Your task to perform on an android device: change keyboard looks Image 0: 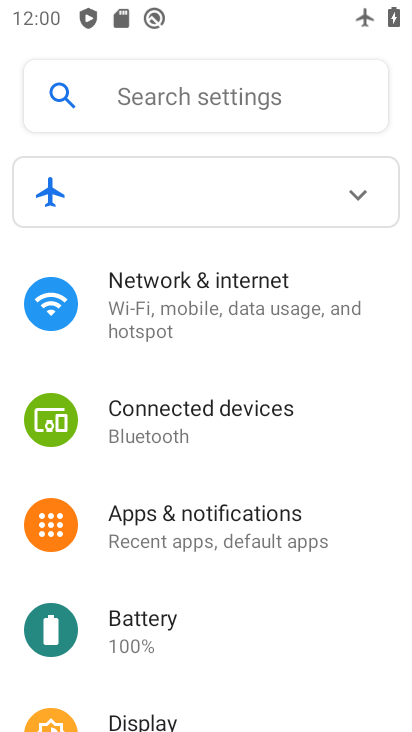
Step 0: press home button
Your task to perform on an android device: change keyboard looks Image 1: 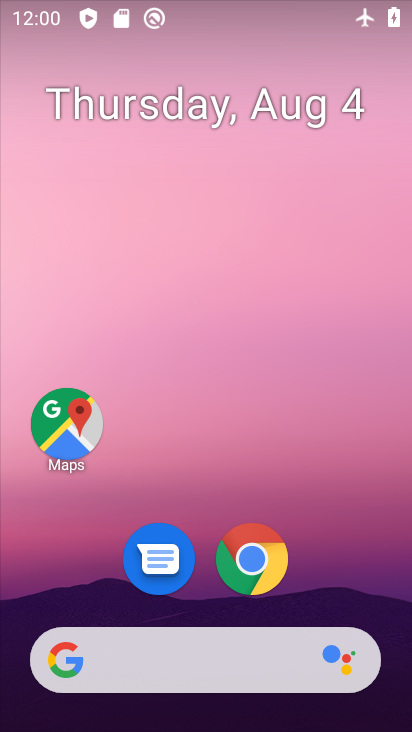
Step 1: drag from (160, 662) to (184, 319)
Your task to perform on an android device: change keyboard looks Image 2: 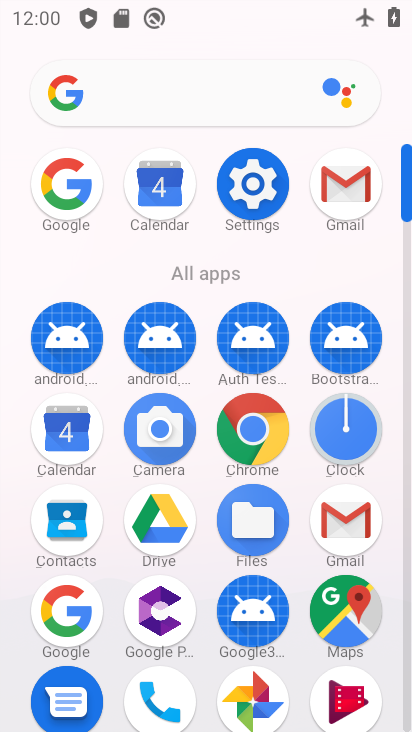
Step 2: click (252, 186)
Your task to perform on an android device: change keyboard looks Image 3: 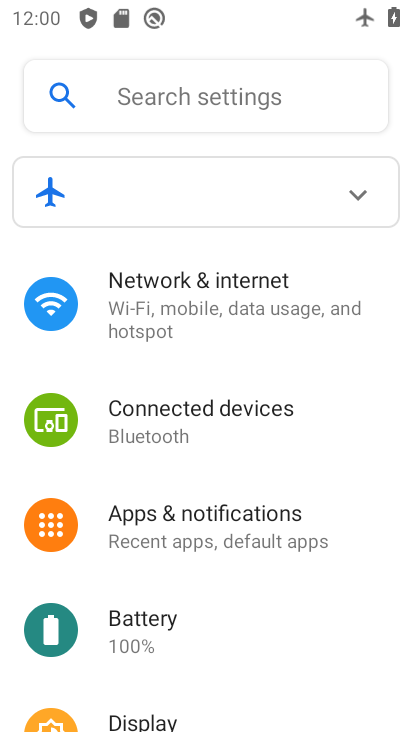
Step 3: drag from (164, 557) to (270, 401)
Your task to perform on an android device: change keyboard looks Image 4: 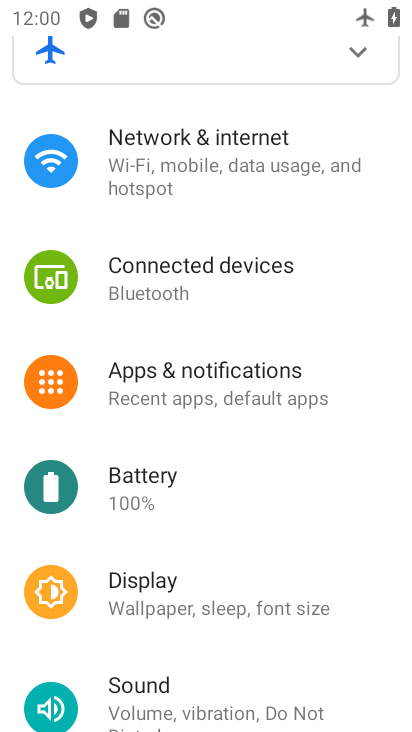
Step 4: drag from (158, 547) to (259, 429)
Your task to perform on an android device: change keyboard looks Image 5: 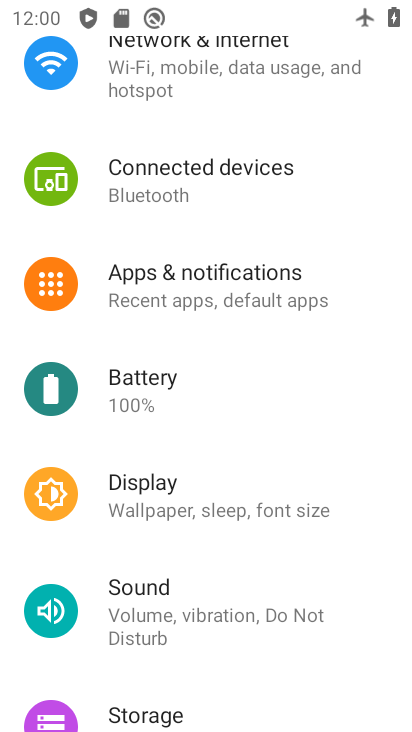
Step 5: drag from (158, 560) to (277, 437)
Your task to perform on an android device: change keyboard looks Image 6: 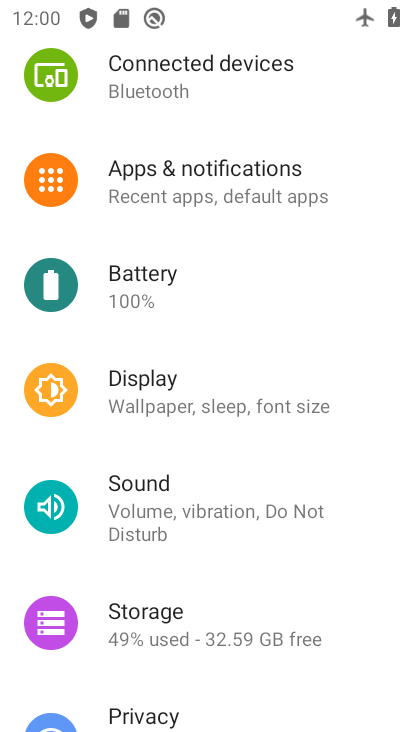
Step 6: drag from (131, 557) to (228, 441)
Your task to perform on an android device: change keyboard looks Image 7: 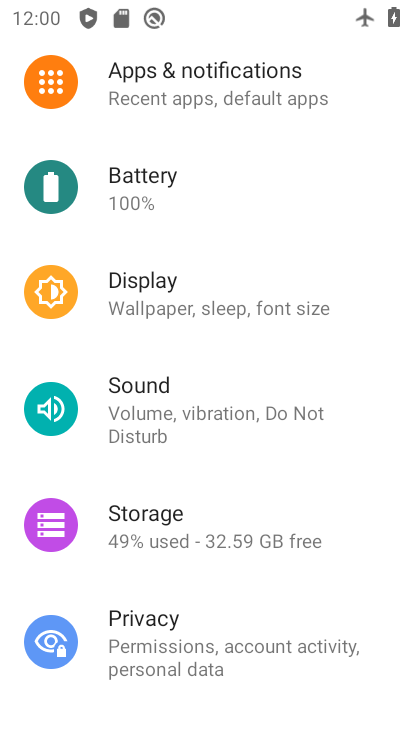
Step 7: drag from (145, 584) to (245, 468)
Your task to perform on an android device: change keyboard looks Image 8: 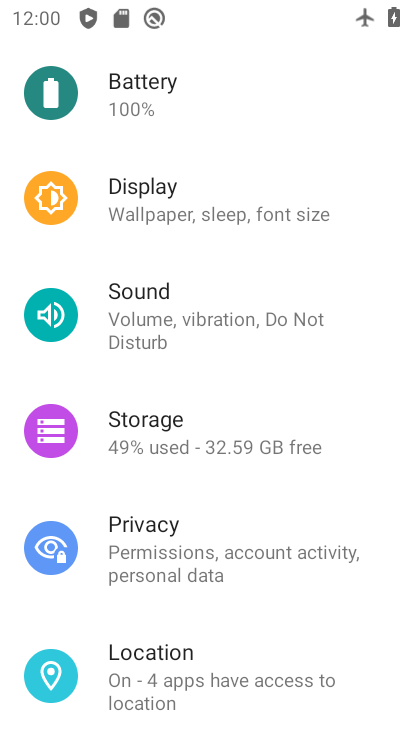
Step 8: drag from (139, 611) to (220, 504)
Your task to perform on an android device: change keyboard looks Image 9: 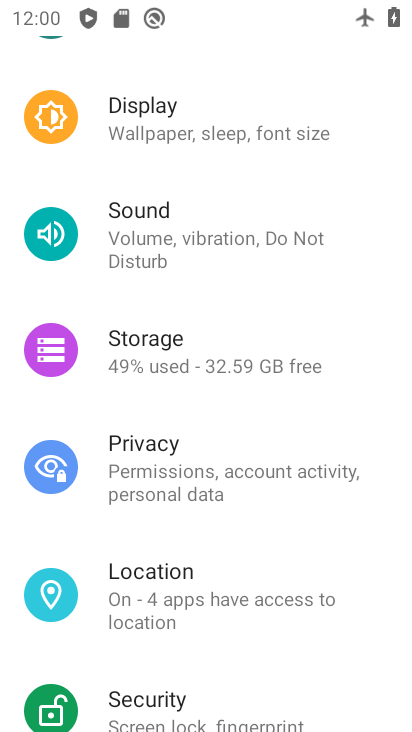
Step 9: drag from (125, 646) to (202, 538)
Your task to perform on an android device: change keyboard looks Image 10: 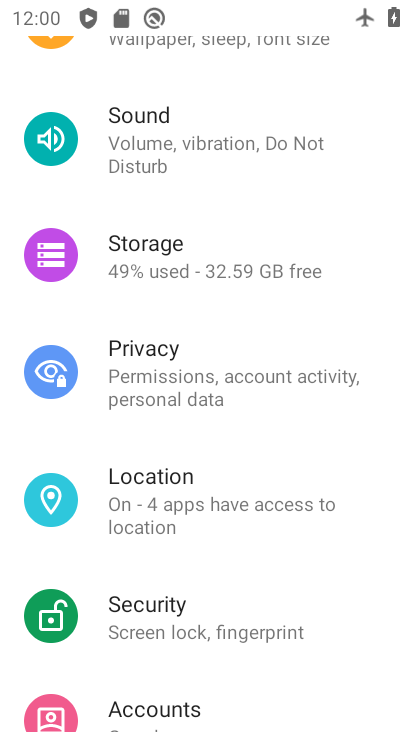
Step 10: drag from (135, 654) to (176, 552)
Your task to perform on an android device: change keyboard looks Image 11: 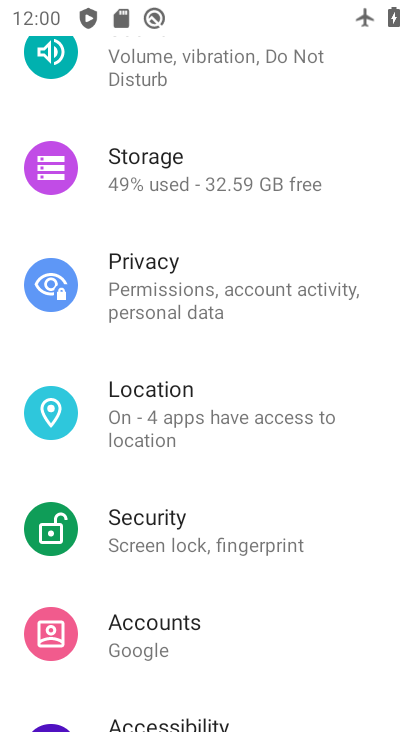
Step 11: drag from (118, 608) to (206, 492)
Your task to perform on an android device: change keyboard looks Image 12: 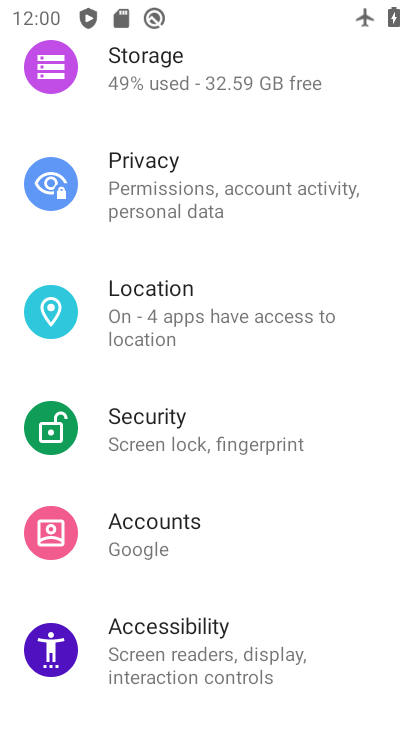
Step 12: drag from (98, 600) to (202, 478)
Your task to perform on an android device: change keyboard looks Image 13: 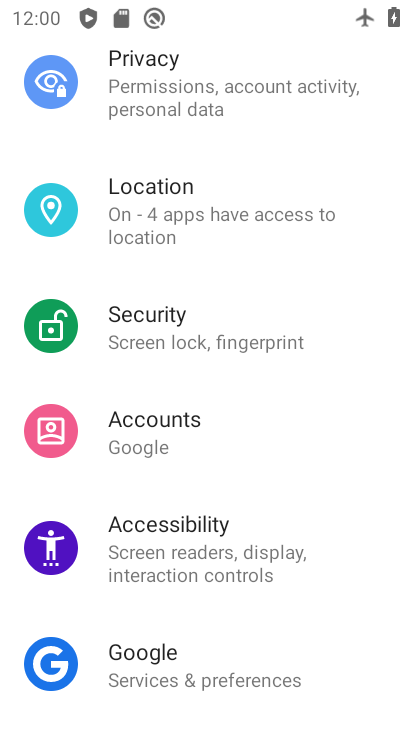
Step 13: drag from (55, 616) to (110, 484)
Your task to perform on an android device: change keyboard looks Image 14: 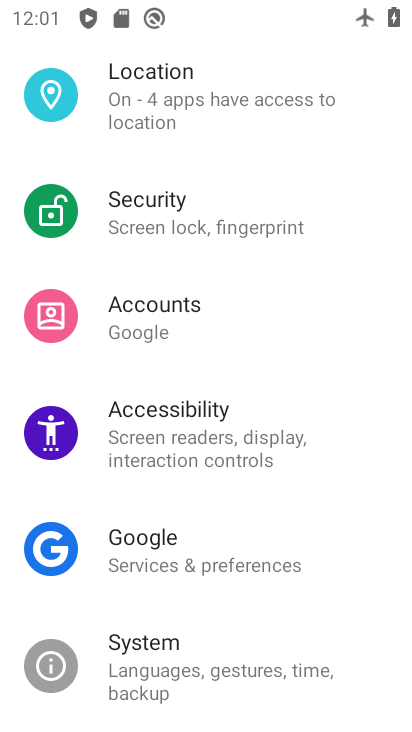
Step 14: drag from (77, 608) to (140, 491)
Your task to perform on an android device: change keyboard looks Image 15: 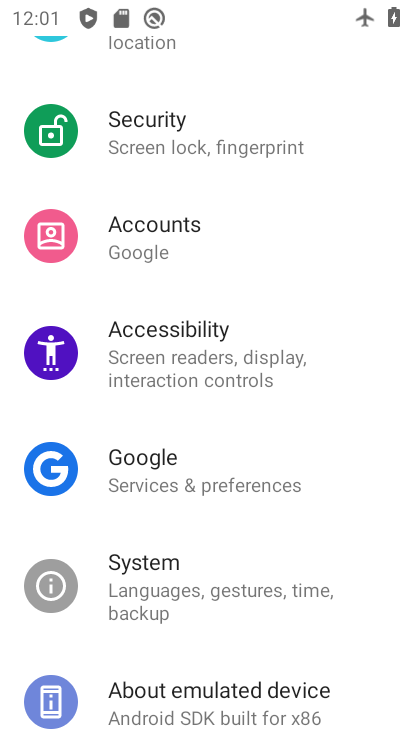
Step 15: drag from (92, 662) to (189, 499)
Your task to perform on an android device: change keyboard looks Image 16: 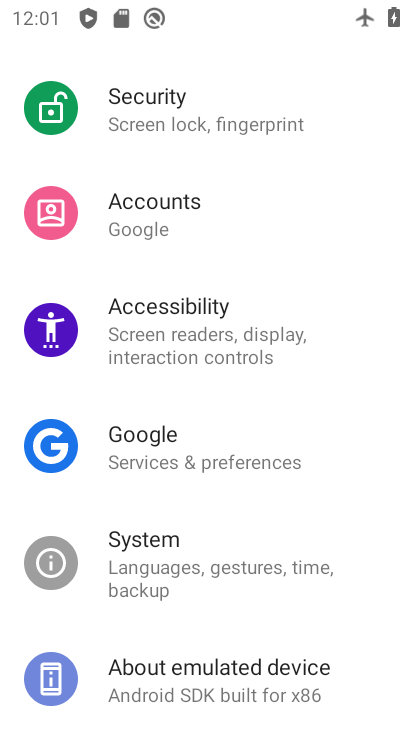
Step 16: click (178, 557)
Your task to perform on an android device: change keyboard looks Image 17: 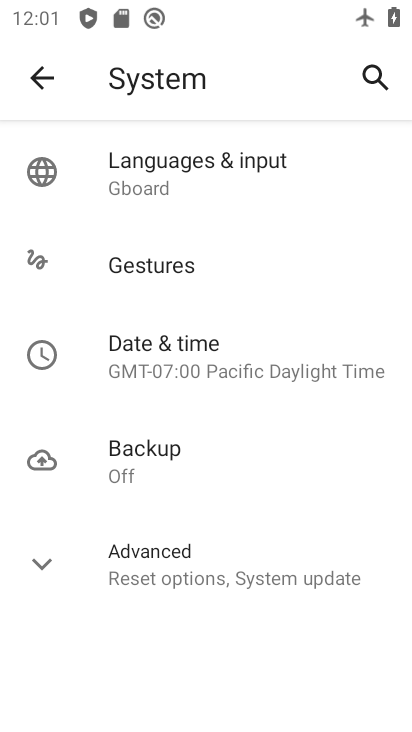
Step 17: click (273, 167)
Your task to perform on an android device: change keyboard looks Image 18: 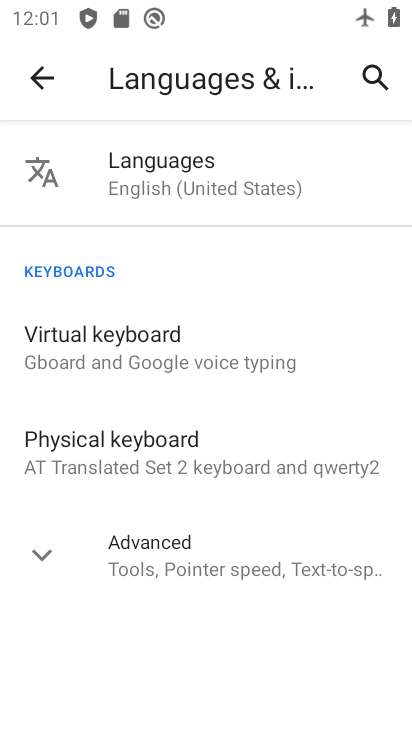
Step 18: click (155, 346)
Your task to perform on an android device: change keyboard looks Image 19: 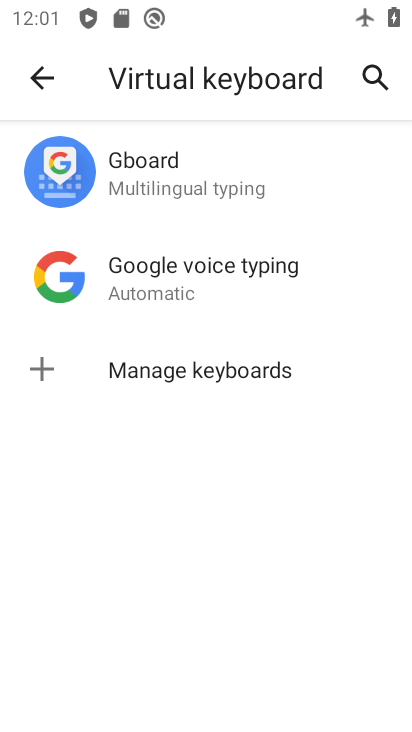
Step 19: click (193, 197)
Your task to perform on an android device: change keyboard looks Image 20: 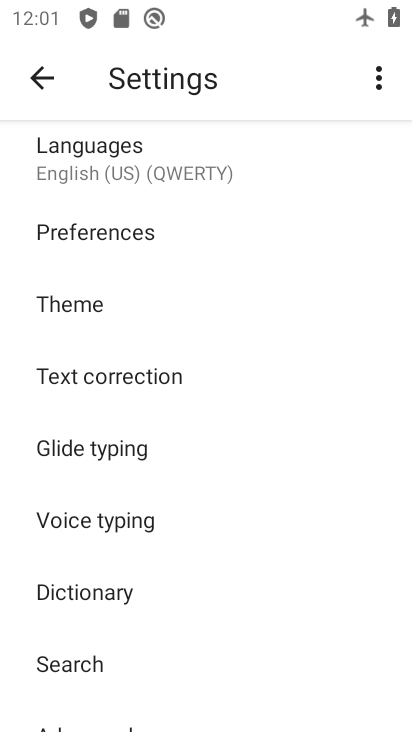
Step 20: click (89, 312)
Your task to perform on an android device: change keyboard looks Image 21: 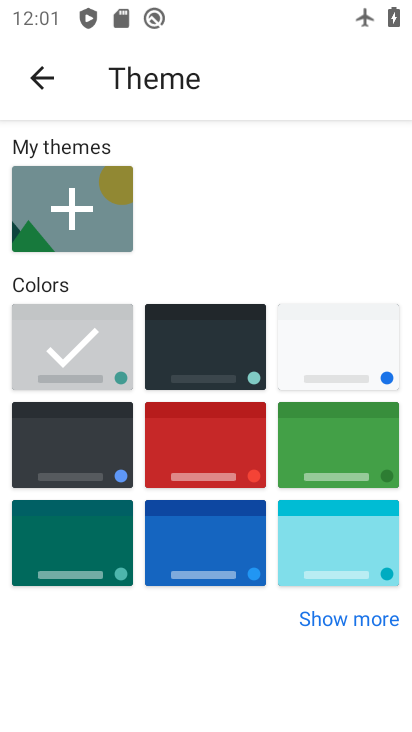
Step 21: click (296, 359)
Your task to perform on an android device: change keyboard looks Image 22: 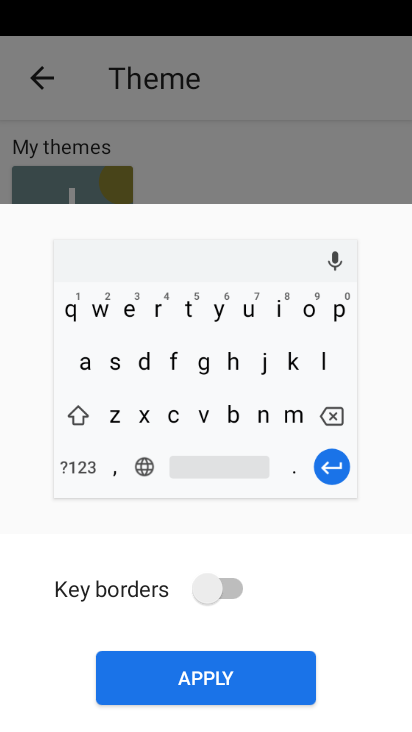
Step 22: click (202, 598)
Your task to perform on an android device: change keyboard looks Image 23: 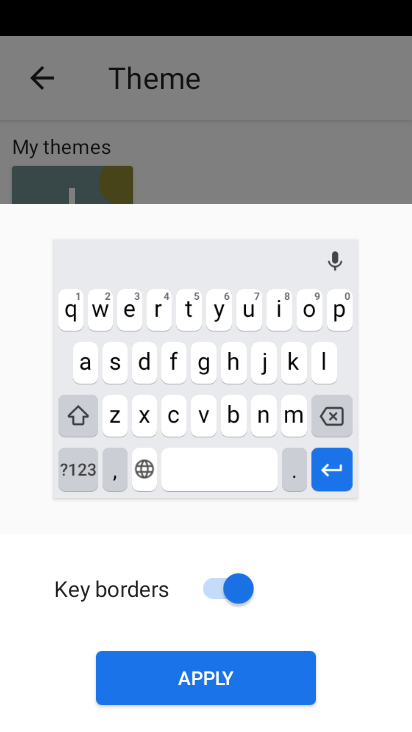
Step 23: click (203, 667)
Your task to perform on an android device: change keyboard looks Image 24: 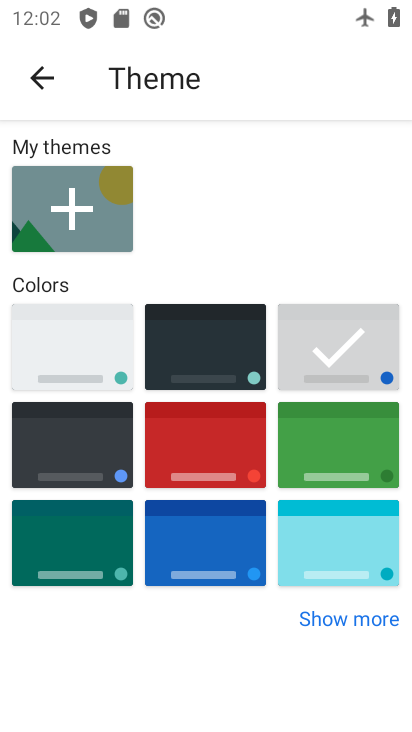
Step 24: task complete